Your task to perform on an android device: add a contact in the contacts app Image 0: 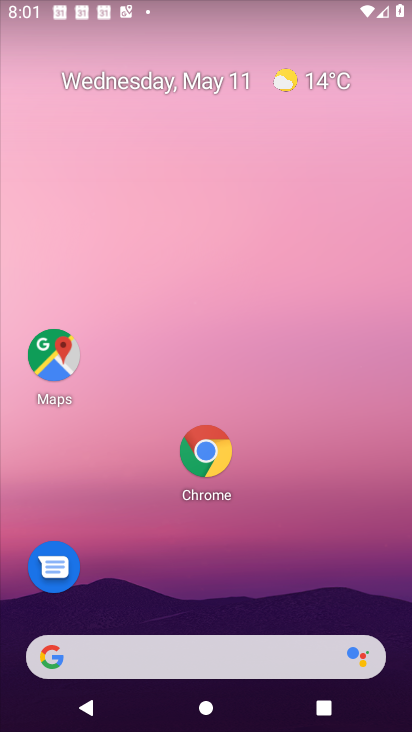
Step 0: press home button
Your task to perform on an android device: add a contact in the contacts app Image 1: 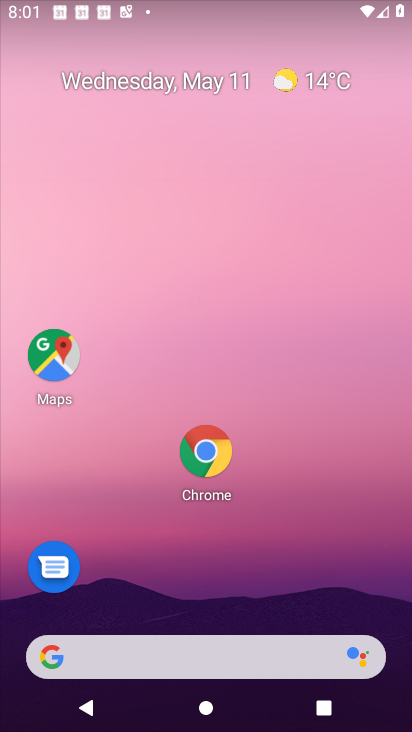
Step 1: drag from (155, 627) to (264, 271)
Your task to perform on an android device: add a contact in the contacts app Image 2: 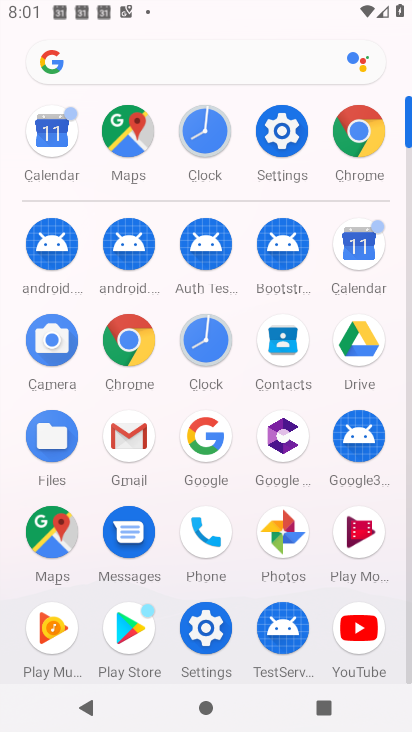
Step 2: click (289, 355)
Your task to perform on an android device: add a contact in the contacts app Image 3: 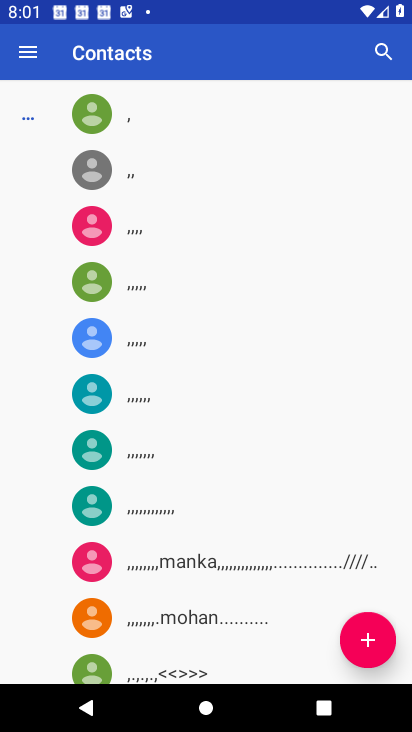
Step 3: click (364, 646)
Your task to perform on an android device: add a contact in the contacts app Image 4: 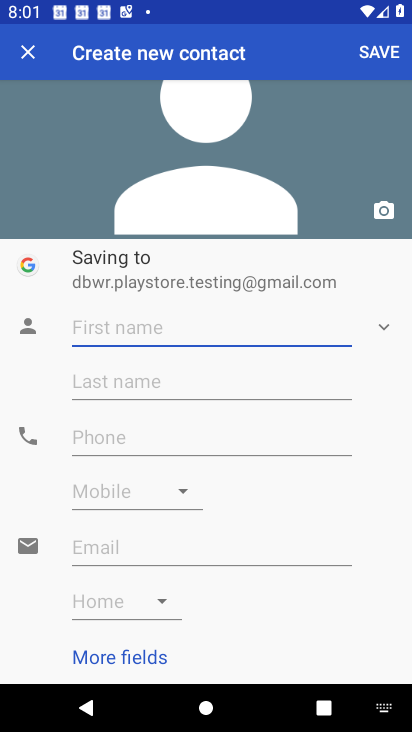
Step 4: type "fgtr"
Your task to perform on an android device: add a contact in the contacts app Image 5: 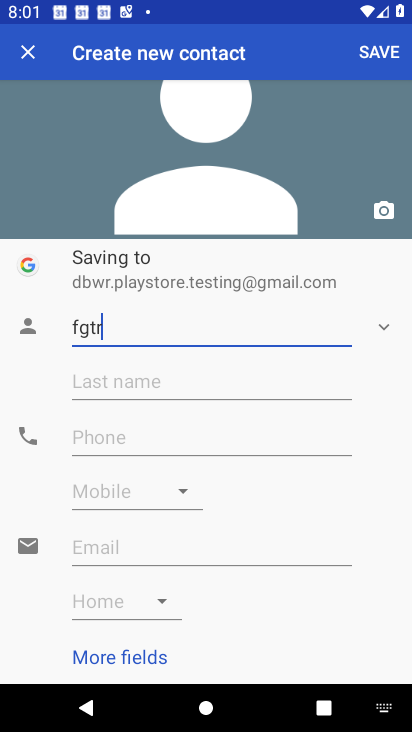
Step 5: click (82, 444)
Your task to perform on an android device: add a contact in the contacts app Image 6: 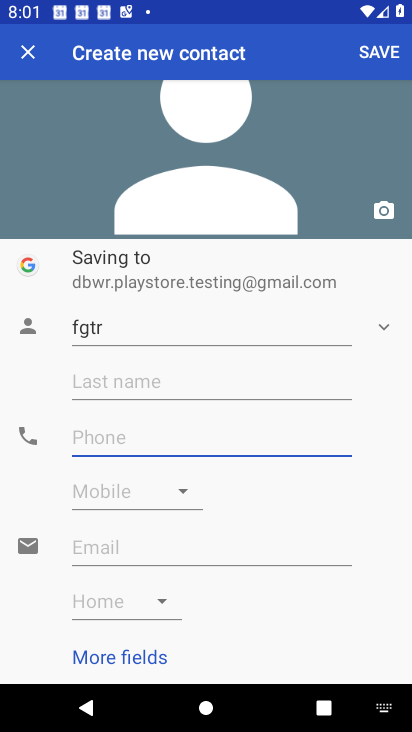
Step 6: type "7560"
Your task to perform on an android device: add a contact in the contacts app Image 7: 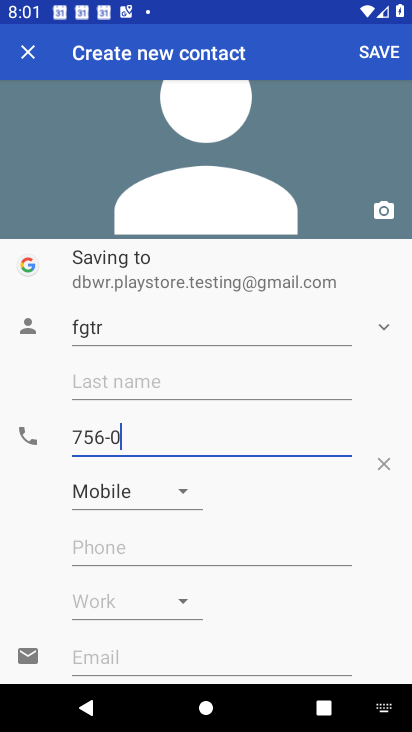
Step 7: click (383, 53)
Your task to perform on an android device: add a contact in the contacts app Image 8: 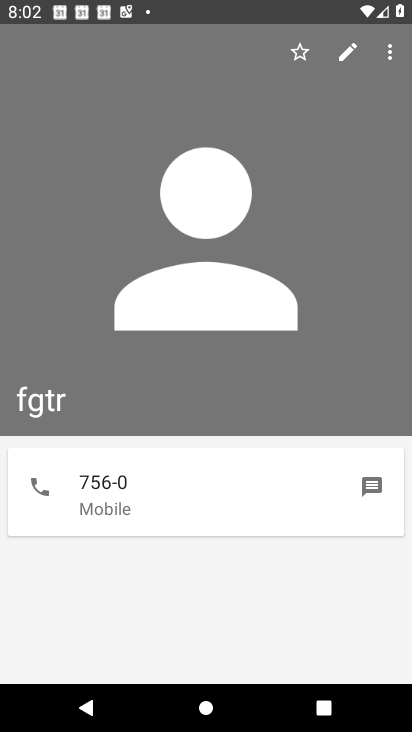
Step 8: task complete